Your task to perform on an android device: Search for Mexican restaurants on Maps Image 0: 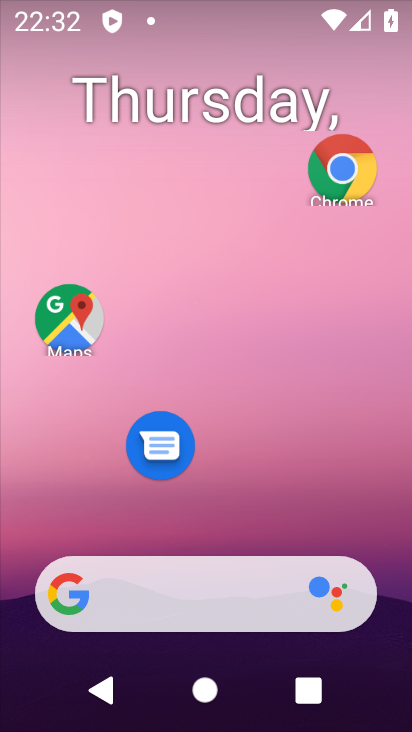
Step 0: drag from (239, 520) to (261, 75)
Your task to perform on an android device: Search for Mexican restaurants on Maps Image 1: 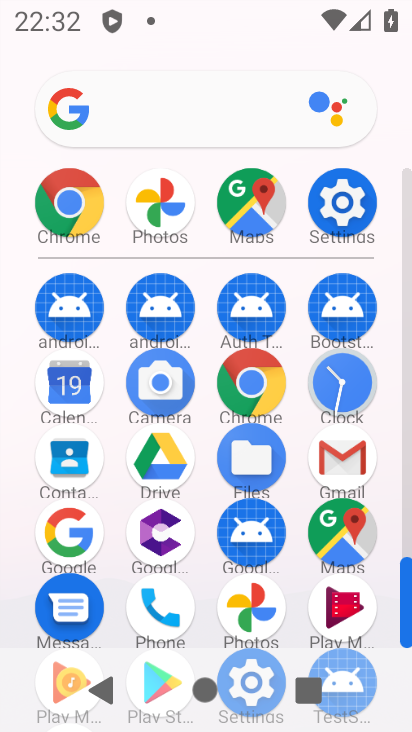
Step 1: click (347, 518)
Your task to perform on an android device: Search for Mexican restaurants on Maps Image 2: 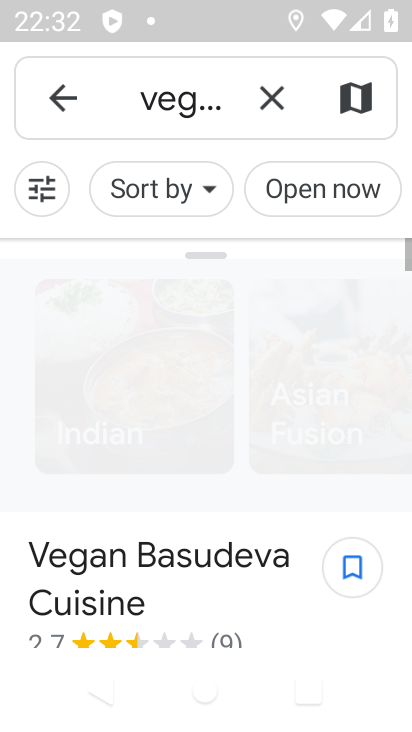
Step 2: drag from (203, 597) to (212, 527)
Your task to perform on an android device: Search for Mexican restaurants on Maps Image 3: 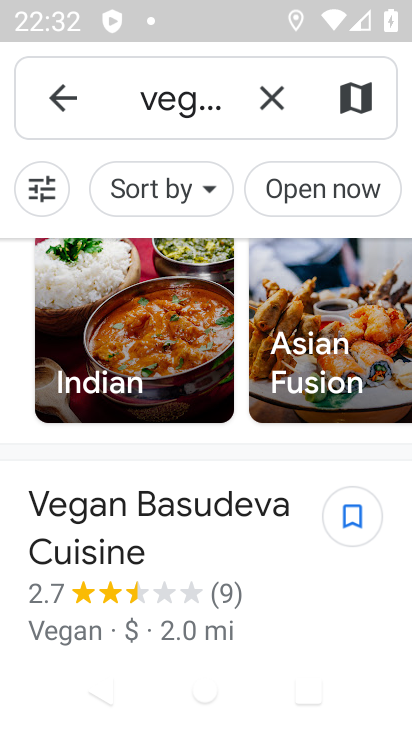
Step 3: drag from (274, 491) to (330, 126)
Your task to perform on an android device: Search for Mexican restaurants on Maps Image 4: 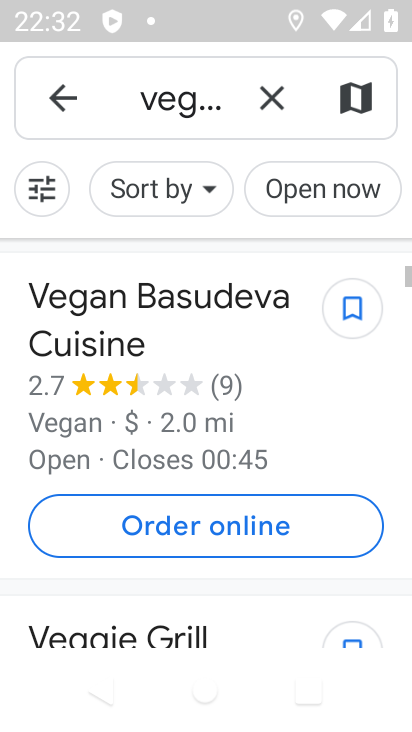
Step 4: click (253, 83)
Your task to perform on an android device: Search for Mexican restaurants on Maps Image 5: 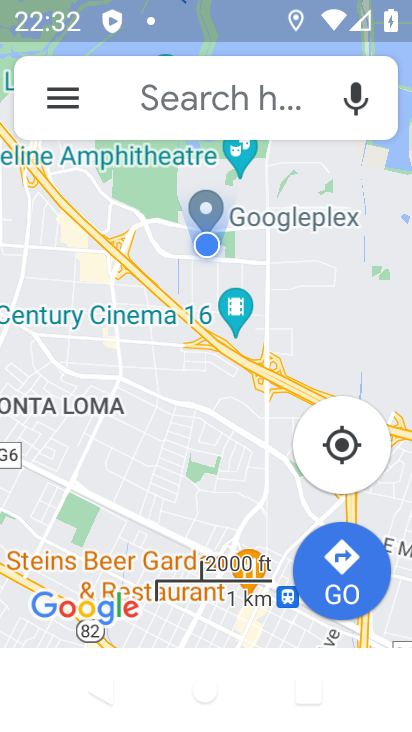
Step 5: click (195, 122)
Your task to perform on an android device: Search for Mexican restaurants on Maps Image 6: 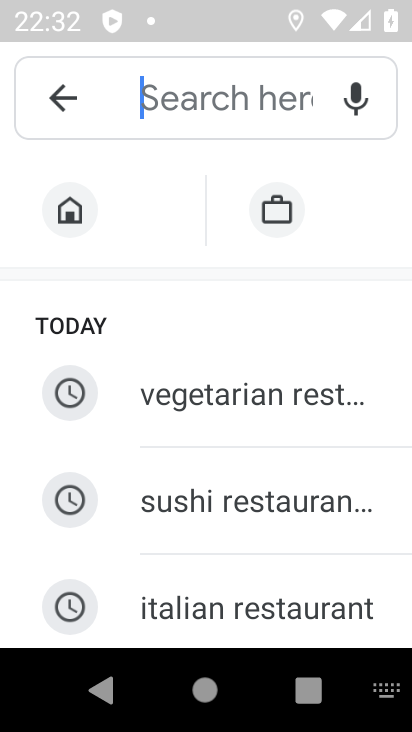
Step 6: drag from (199, 480) to (185, 132)
Your task to perform on an android device: Search for Mexican restaurants on Maps Image 7: 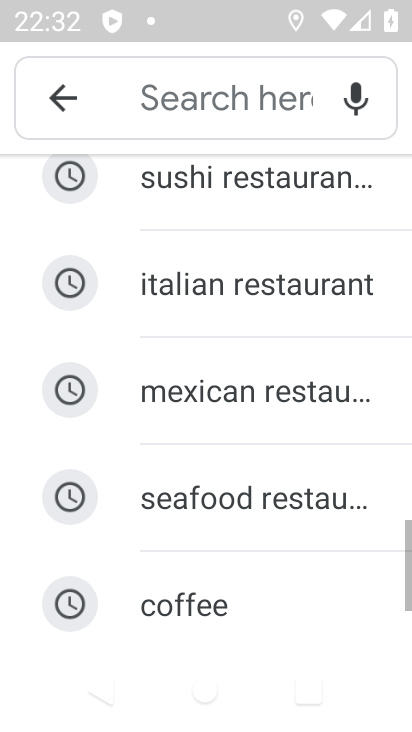
Step 7: drag from (181, 120) to (198, 28)
Your task to perform on an android device: Search for Mexican restaurants on Maps Image 8: 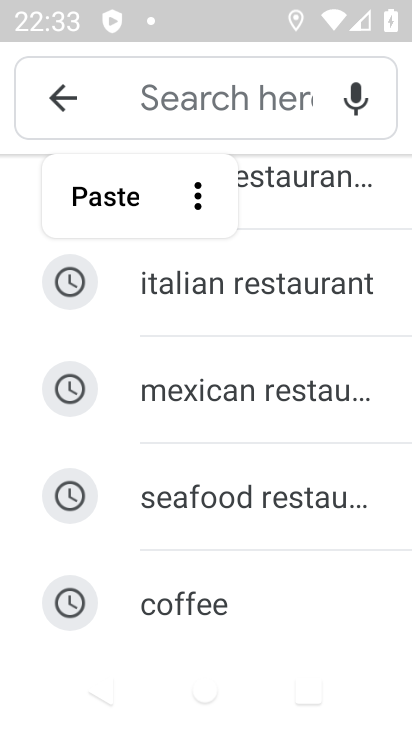
Step 8: drag from (281, 479) to (295, 126)
Your task to perform on an android device: Search for Mexican restaurants on Maps Image 9: 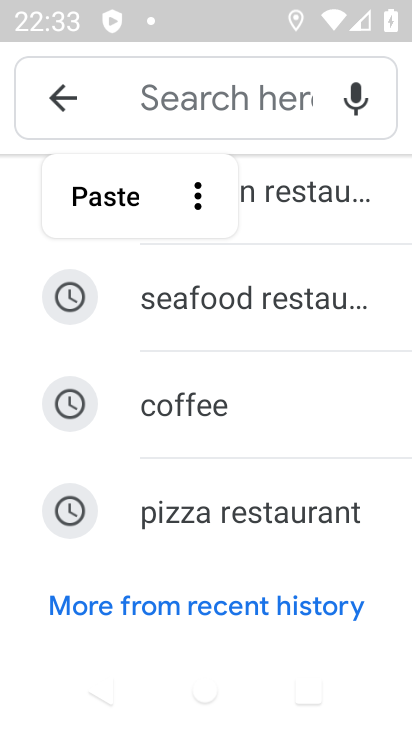
Step 9: drag from (239, 286) to (193, 727)
Your task to perform on an android device: Search for Mexican restaurants on Maps Image 10: 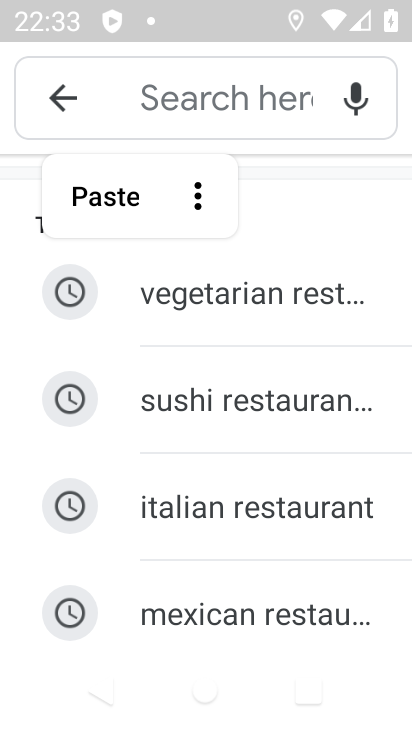
Step 10: click (214, 612)
Your task to perform on an android device: Search for Mexican restaurants on Maps Image 11: 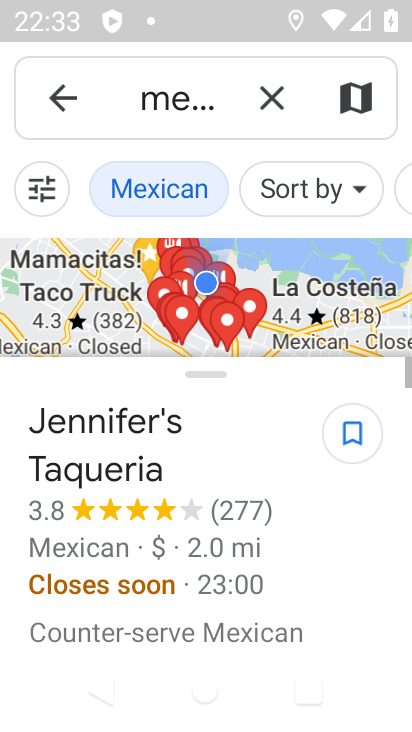
Step 11: task complete